Your task to perform on an android device: Open calendar and show me the third week of next month Image 0: 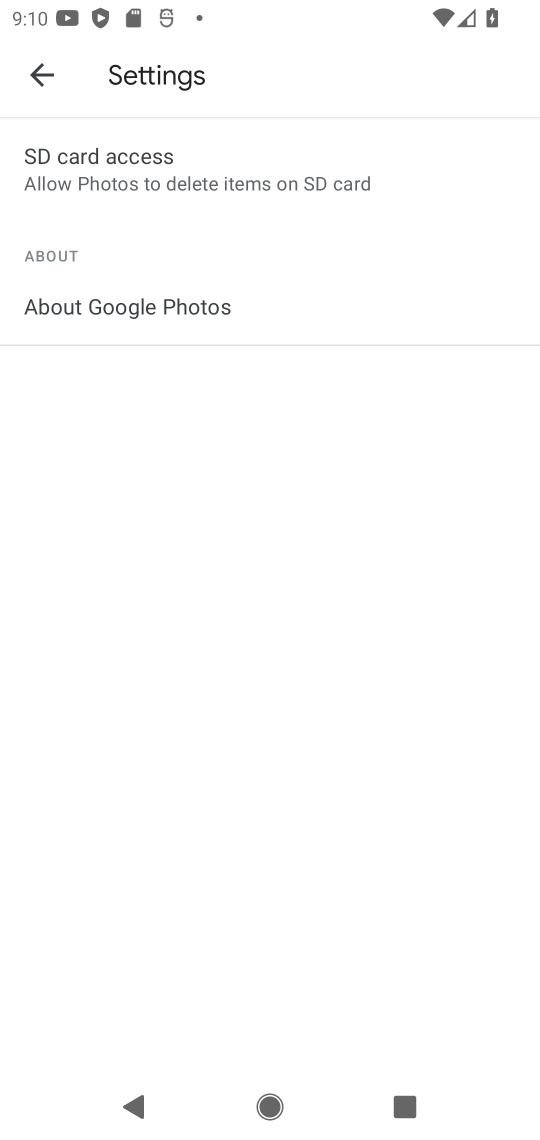
Step 0: press home button
Your task to perform on an android device: Open calendar and show me the third week of next month Image 1: 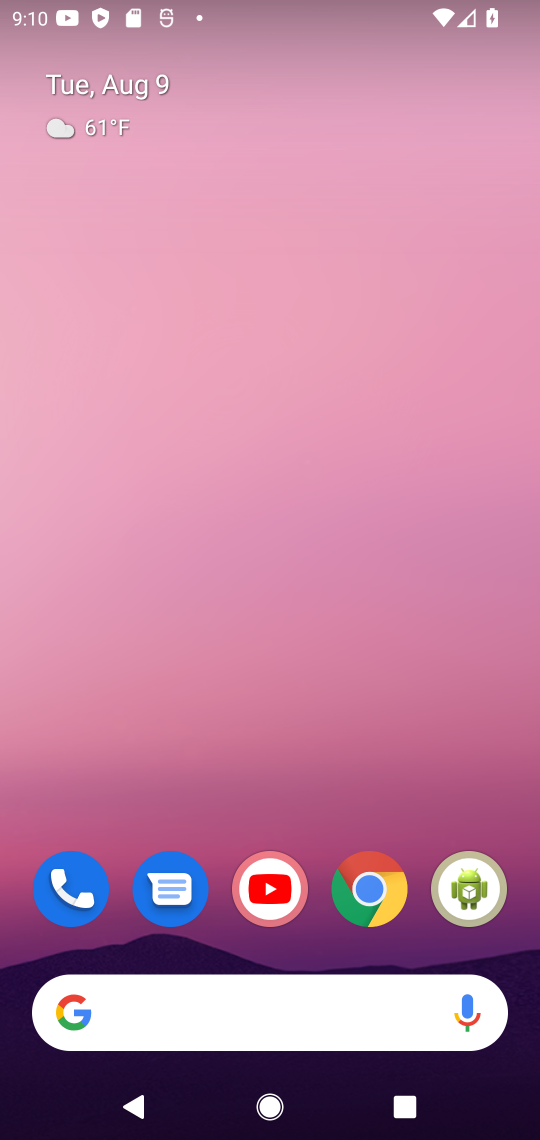
Step 1: drag from (265, 945) to (307, 238)
Your task to perform on an android device: Open calendar and show me the third week of next month Image 2: 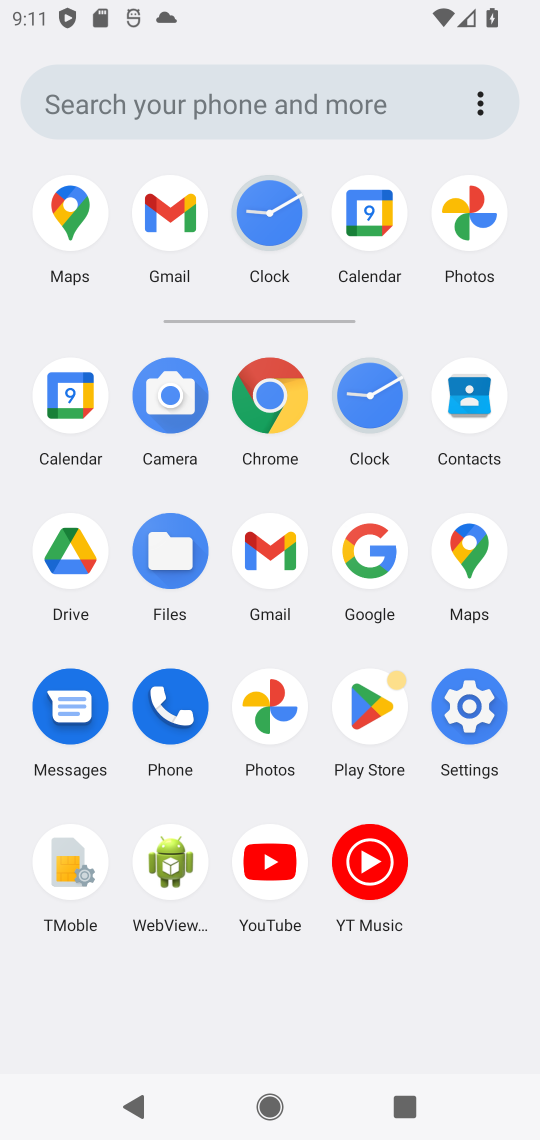
Step 2: click (98, 414)
Your task to perform on an android device: Open calendar and show me the third week of next month Image 3: 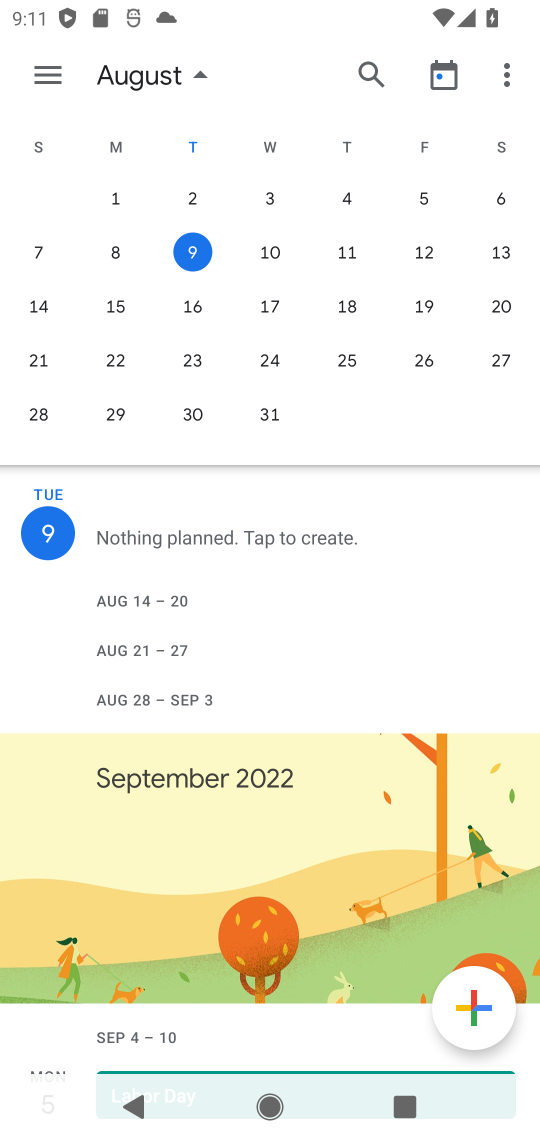
Step 3: drag from (396, 322) to (0, 111)
Your task to perform on an android device: Open calendar and show me the third week of next month Image 4: 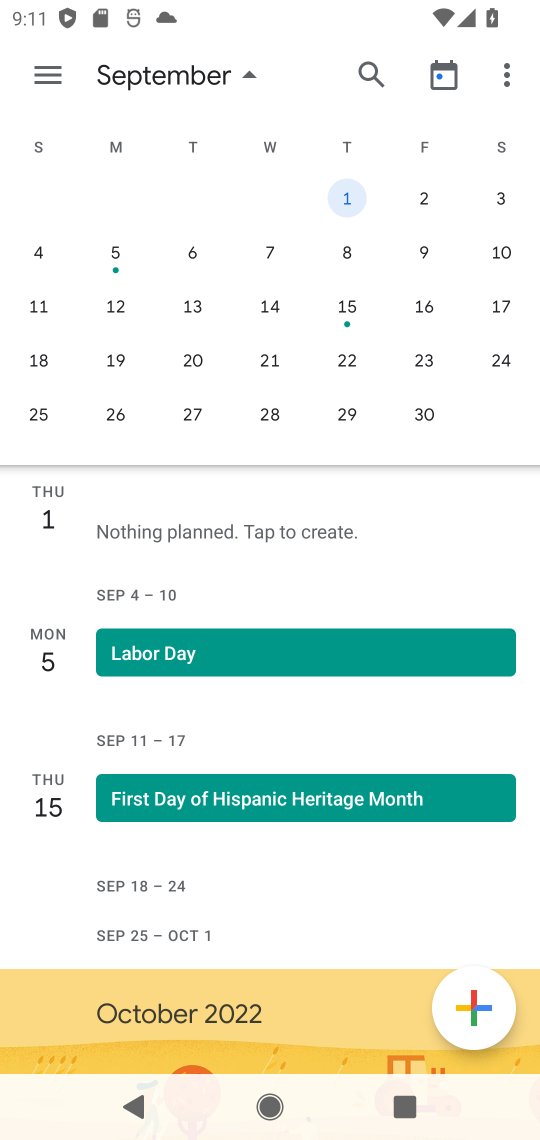
Step 4: click (268, 361)
Your task to perform on an android device: Open calendar and show me the third week of next month Image 5: 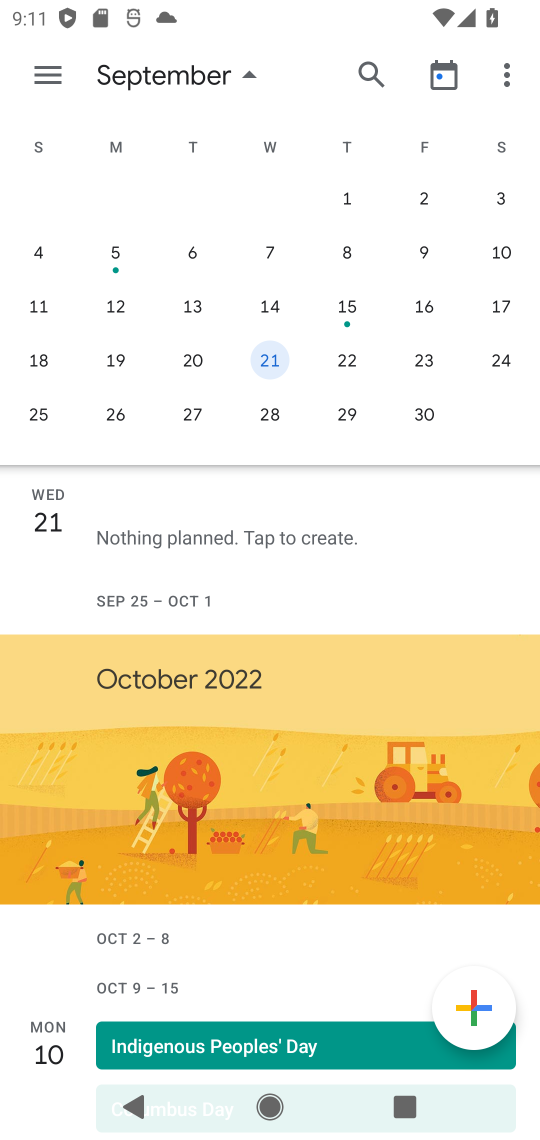
Step 5: task complete